Your task to perform on an android device: turn on data saver in the chrome app Image 0: 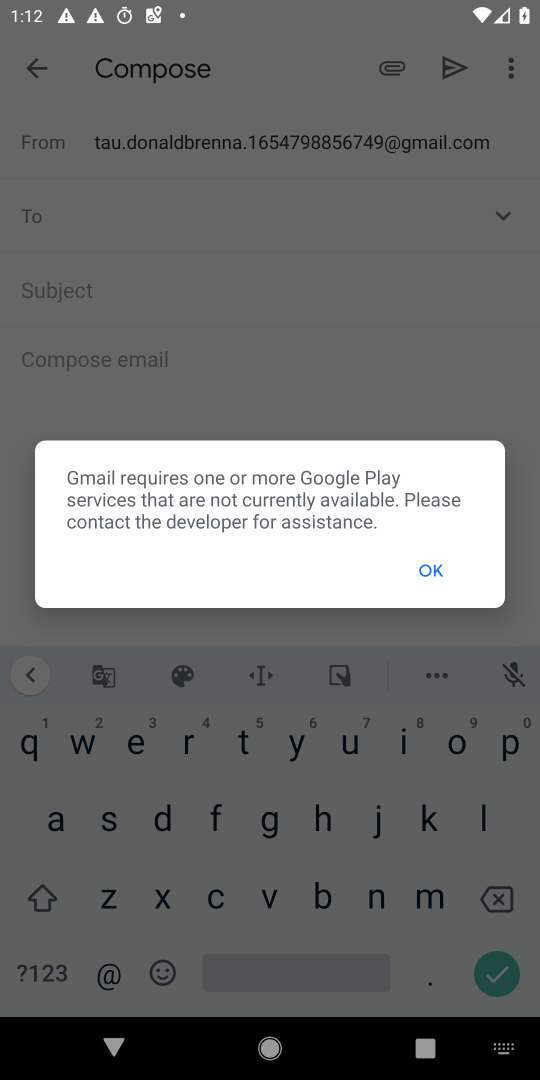
Step 0: press home button
Your task to perform on an android device: turn on data saver in the chrome app Image 1: 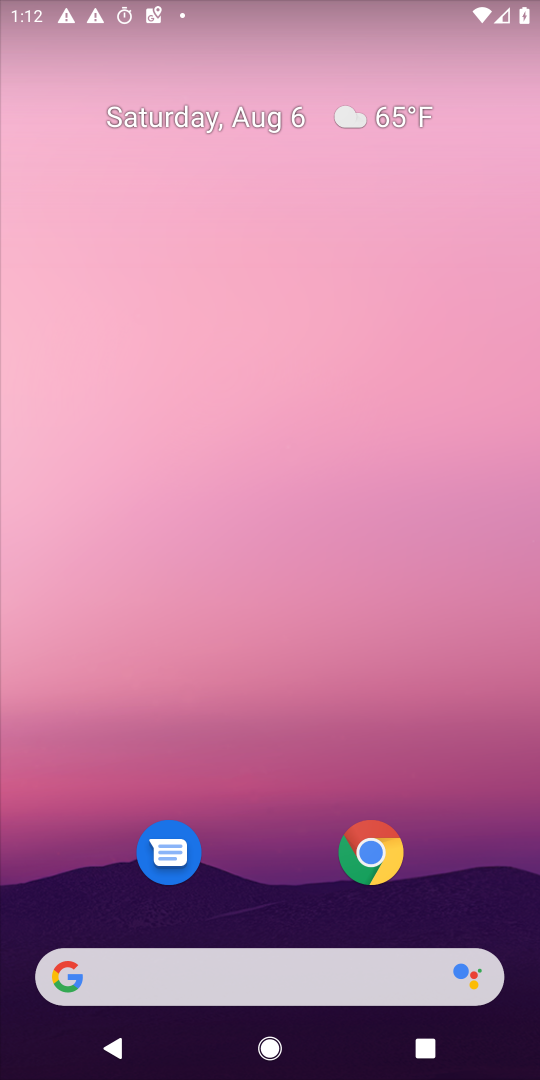
Step 1: drag from (338, 1016) to (221, 60)
Your task to perform on an android device: turn on data saver in the chrome app Image 2: 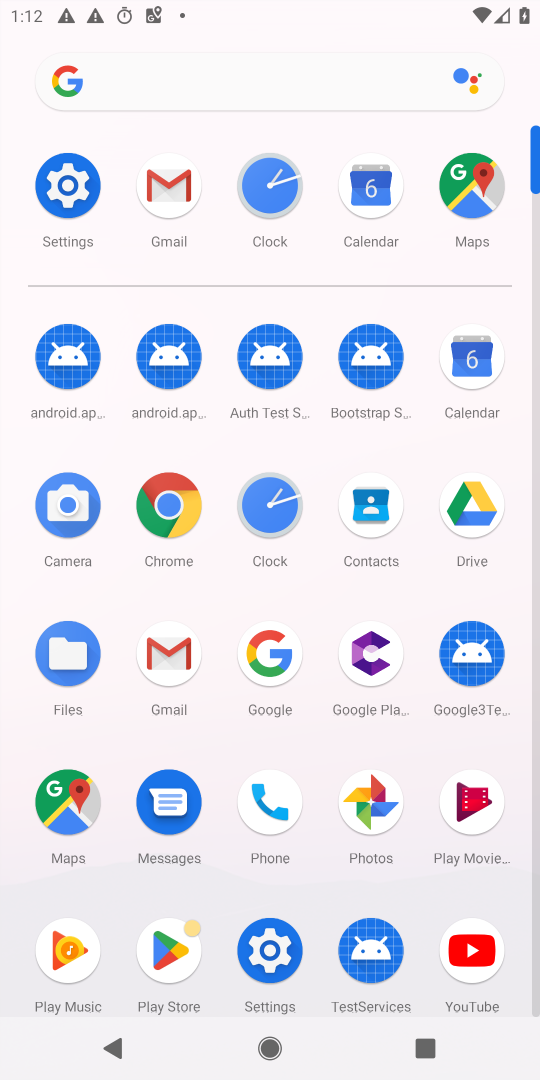
Step 2: click (180, 522)
Your task to perform on an android device: turn on data saver in the chrome app Image 3: 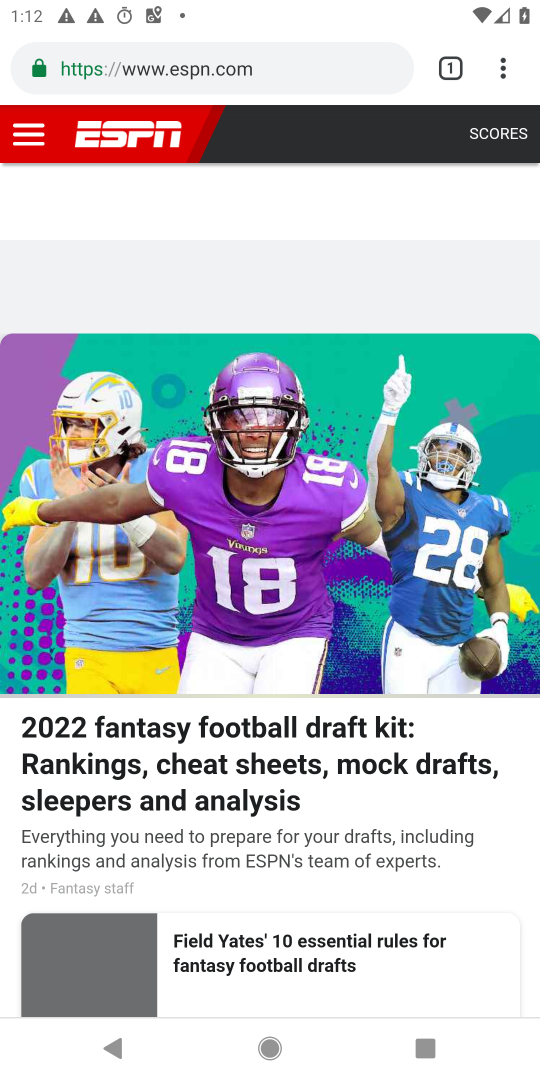
Step 3: click (497, 72)
Your task to perform on an android device: turn on data saver in the chrome app Image 4: 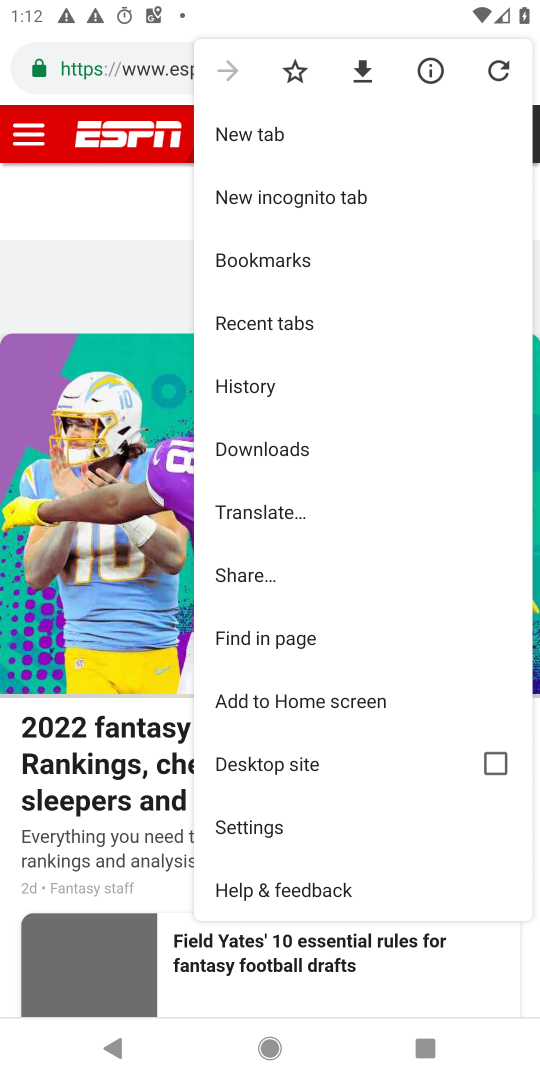
Step 4: click (282, 828)
Your task to perform on an android device: turn on data saver in the chrome app Image 5: 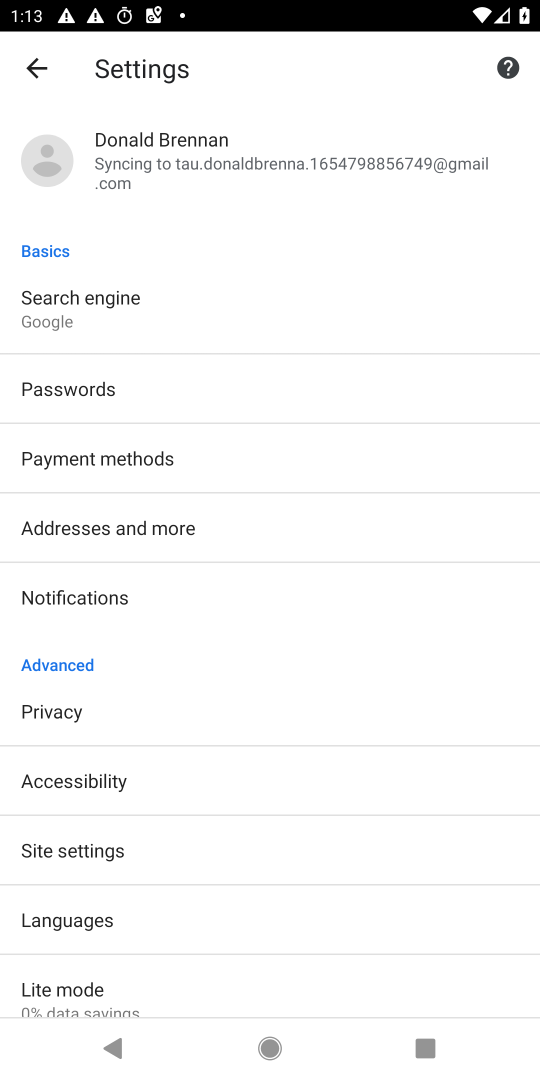
Step 5: click (71, 858)
Your task to perform on an android device: turn on data saver in the chrome app Image 6: 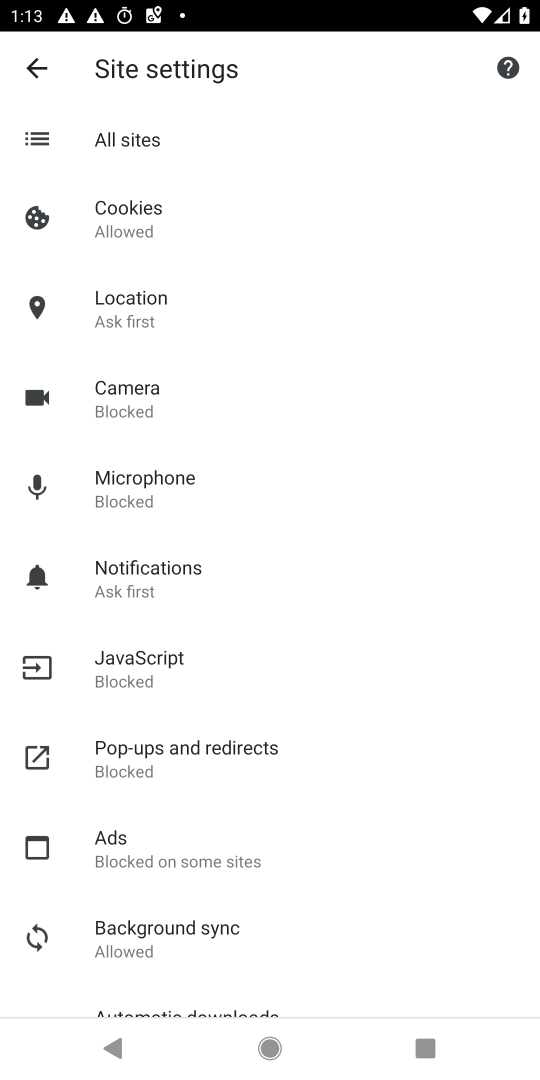
Step 6: click (33, 79)
Your task to perform on an android device: turn on data saver in the chrome app Image 7: 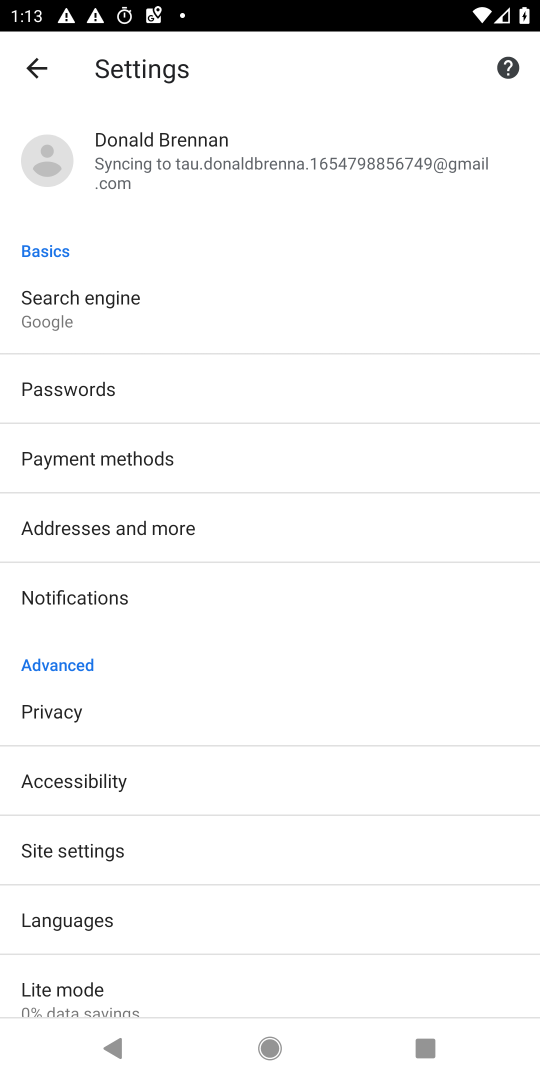
Step 7: click (59, 988)
Your task to perform on an android device: turn on data saver in the chrome app Image 8: 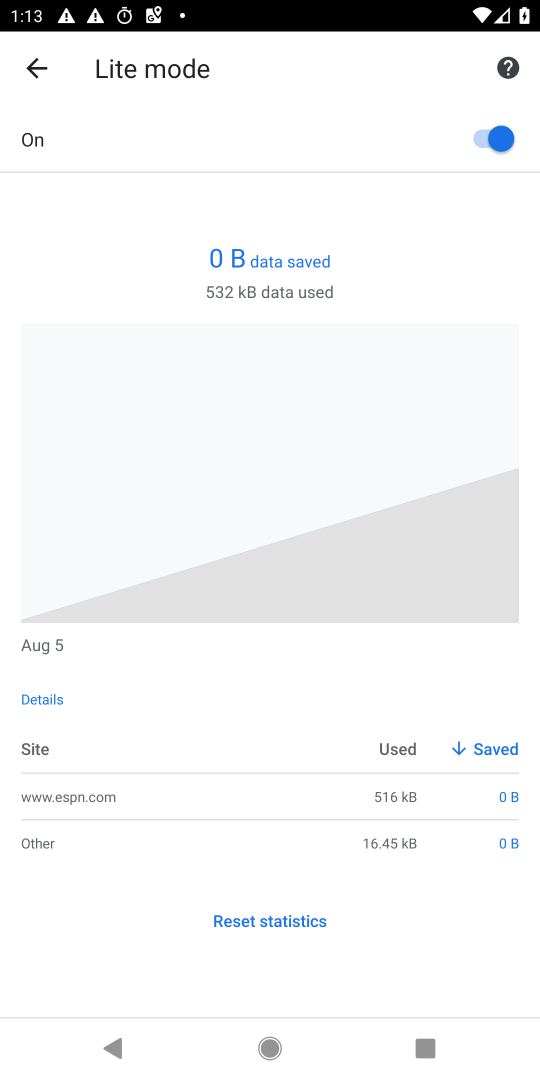
Step 8: task complete